Your task to perform on an android device: Open location settings Image 0: 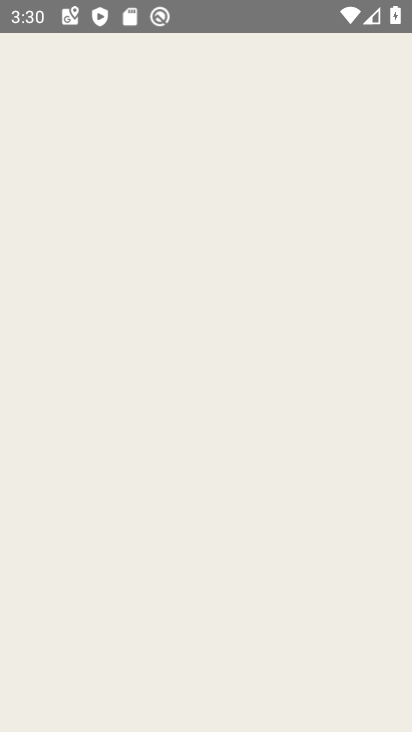
Step 0: drag from (229, 393) to (225, 268)
Your task to perform on an android device: Open location settings Image 1: 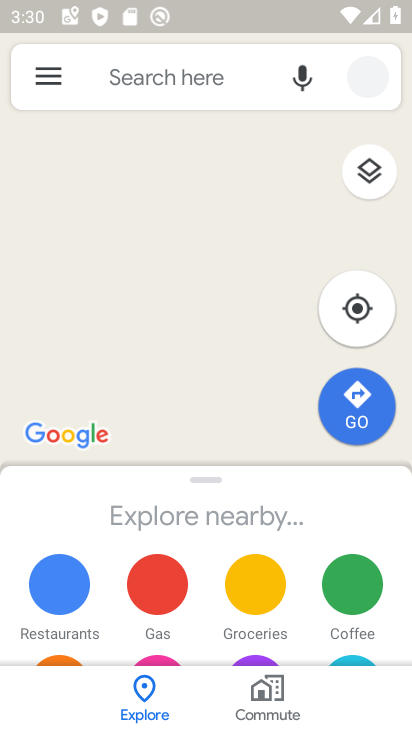
Step 1: press home button
Your task to perform on an android device: Open location settings Image 2: 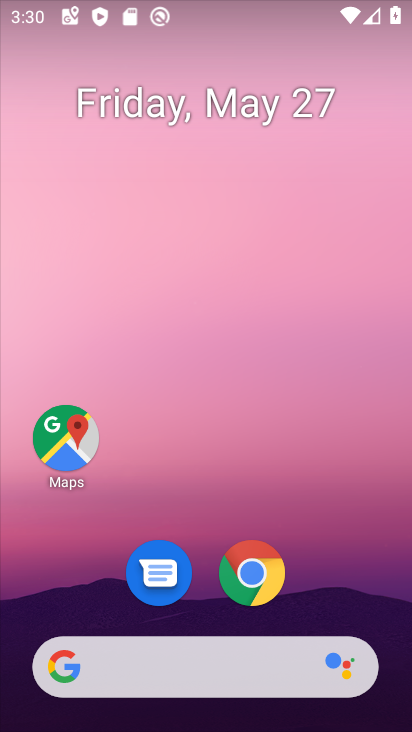
Step 2: drag from (255, 493) to (242, 58)
Your task to perform on an android device: Open location settings Image 3: 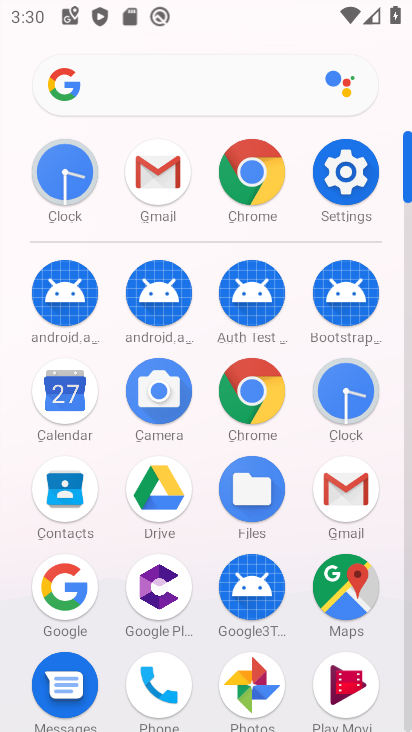
Step 3: click (350, 181)
Your task to perform on an android device: Open location settings Image 4: 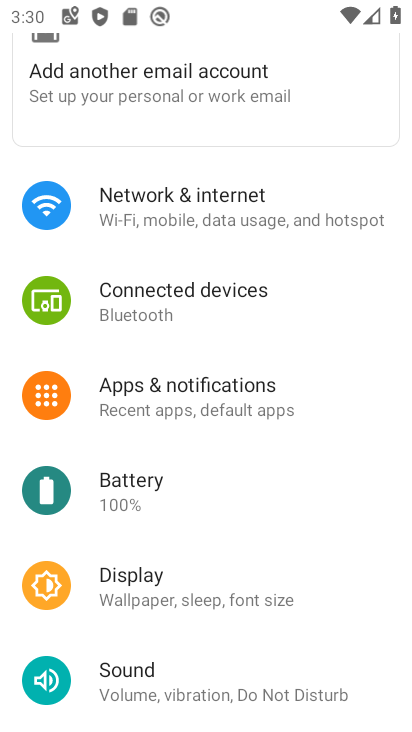
Step 4: drag from (252, 540) to (249, 122)
Your task to perform on an android device: Open location settings Image 5: 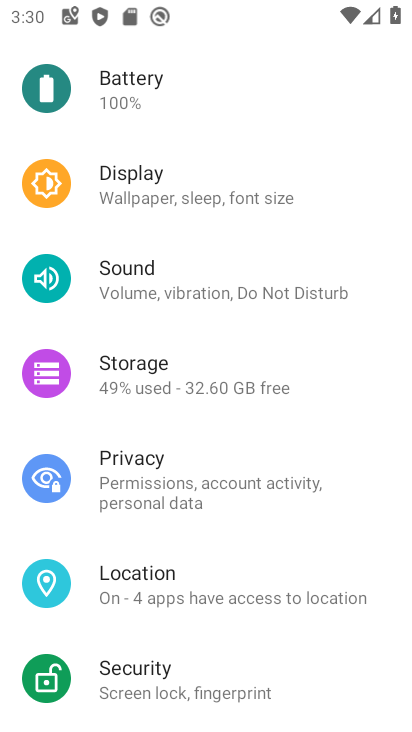
Step 5: click (212, 584)
Your task to perform on an android device: Open location settings Image 6: 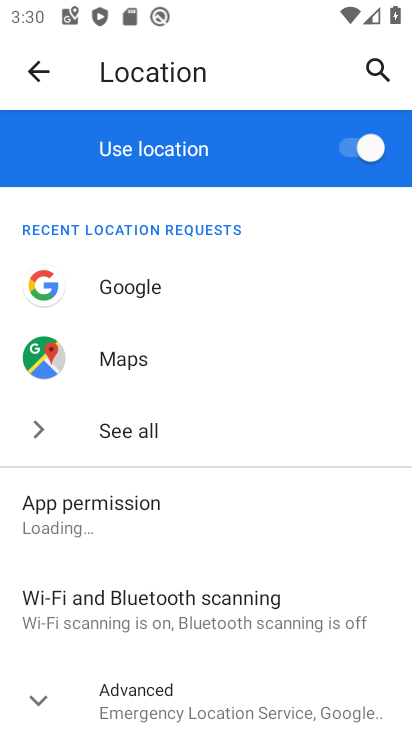
Step 6: task complete